Your task to perform on an android device: open app "HBO Max: Stream TV & Movies" Image 0: 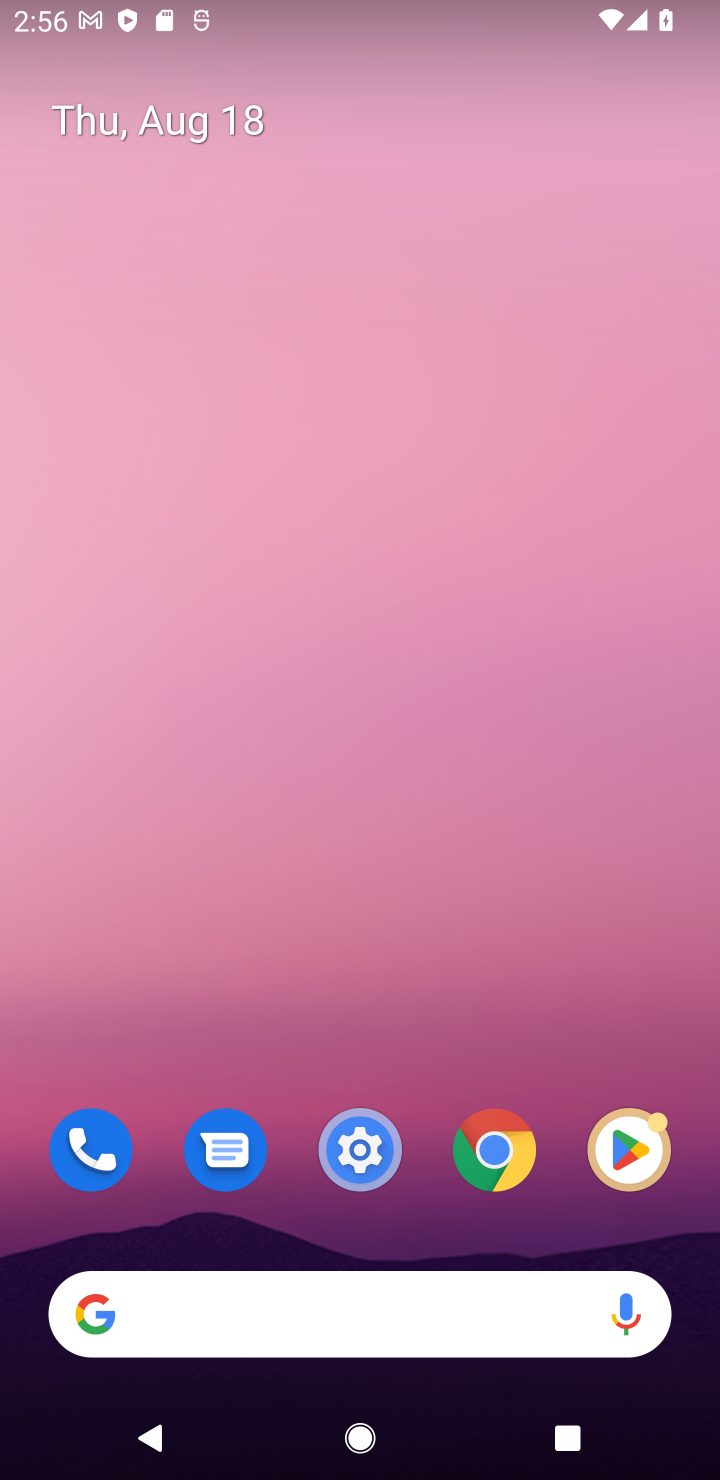
Step 0: drag from (414, 1217) to (399, 216)
Your task to perform on an android device: open app "HBO Max: Stream TV & Movies" Image 1: 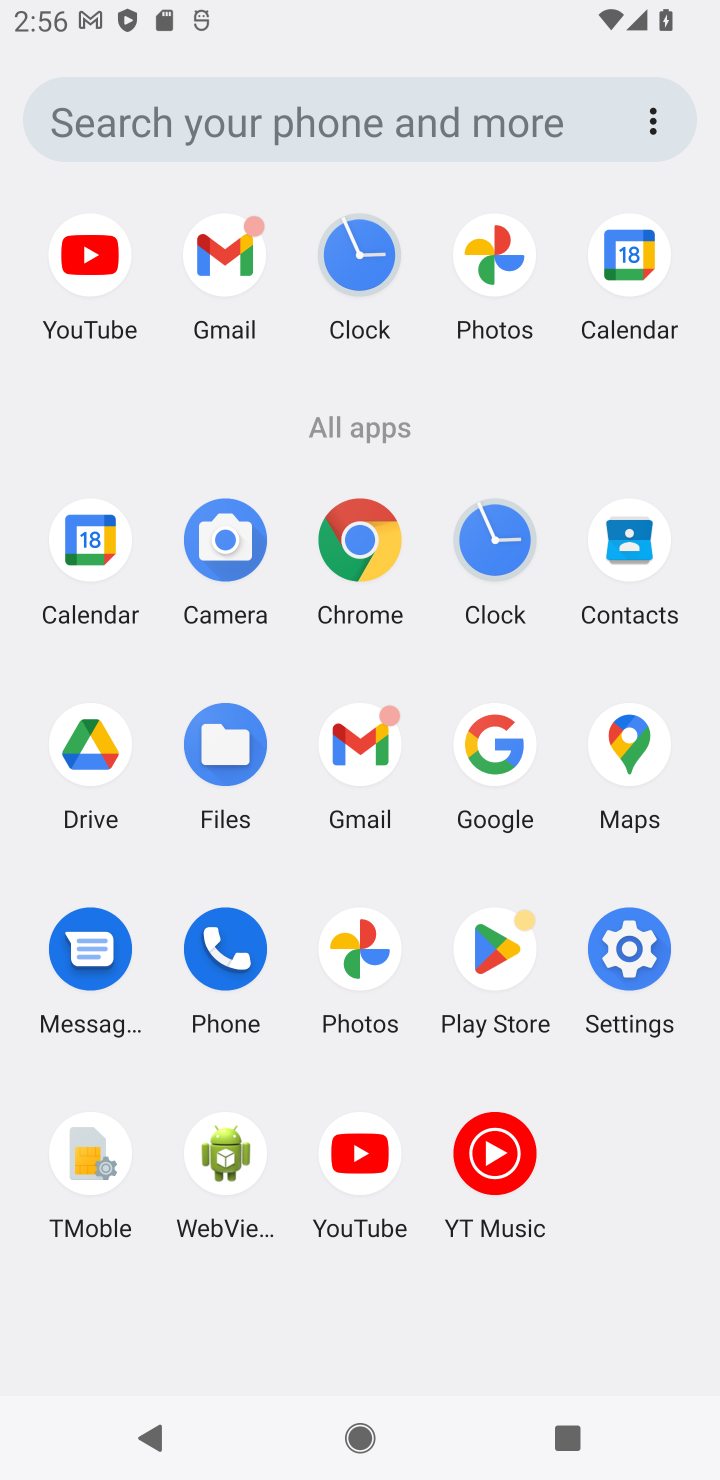
Step 1: click (499, 950)
Your task to perform on an android device: open app "HBO Max: Stream TV & Movies" Image 2: 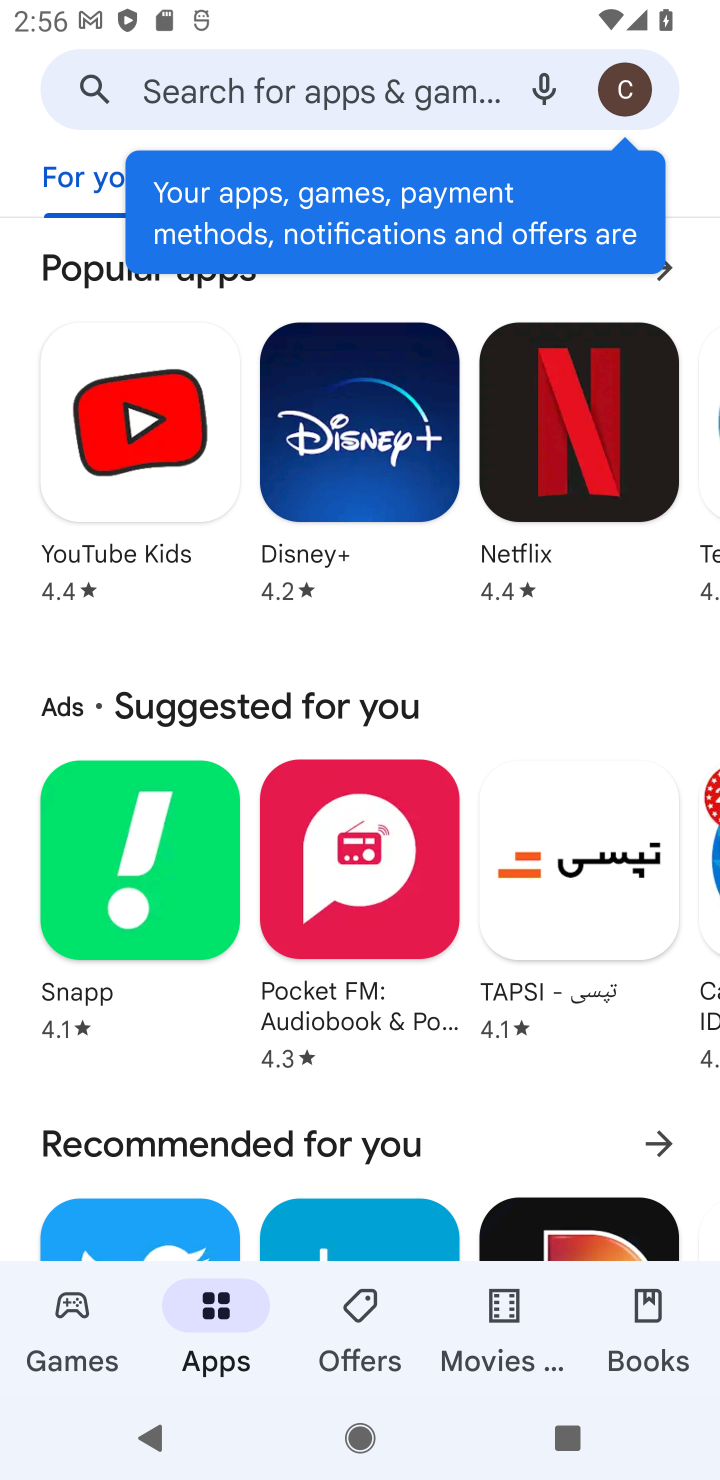
Step 2: click (243, 77)
Your task to perform on an android device: open app "HBO Max: Stream TV & Movies" Image 3: 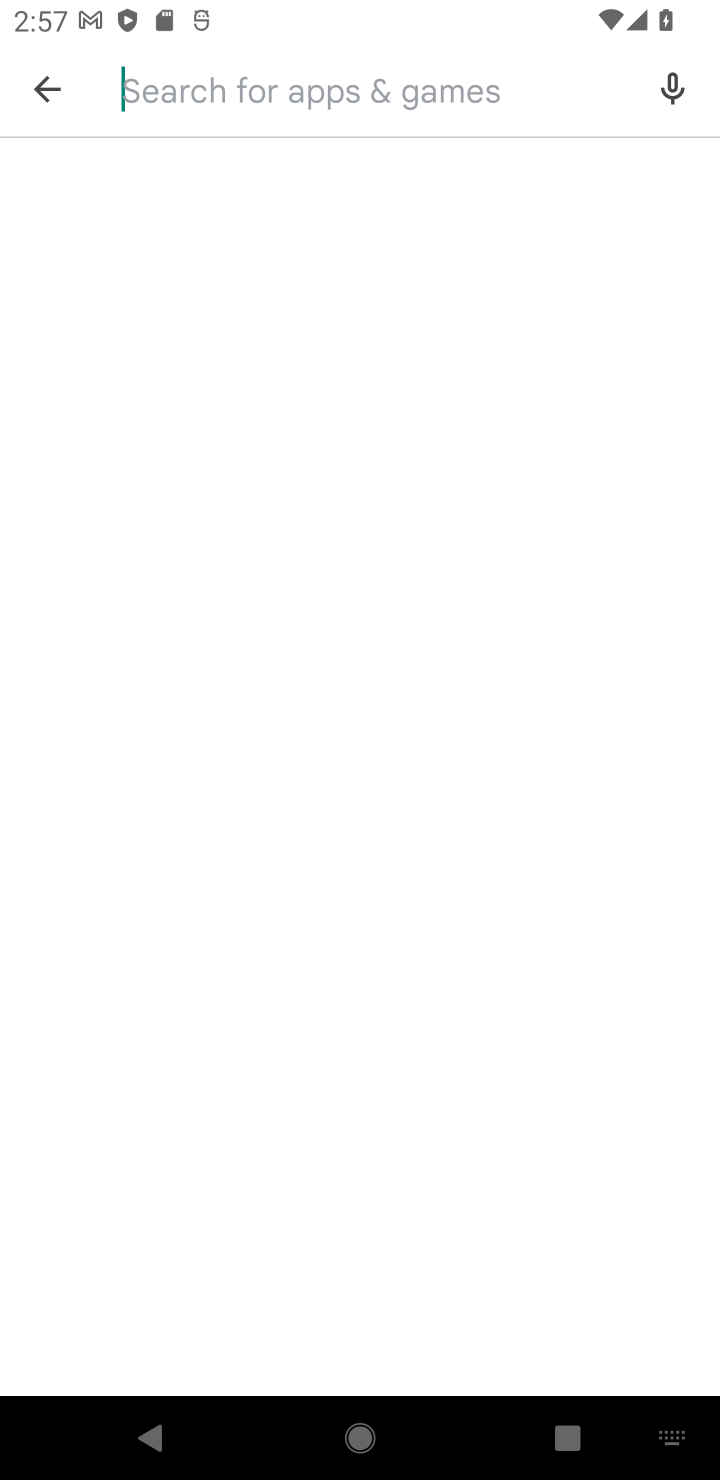
Step 3: type "HBO Max: Stream TV & Movies"
Your task to perform on an android device: open app "HBO Max: Stream TV & Movies" Image 4: 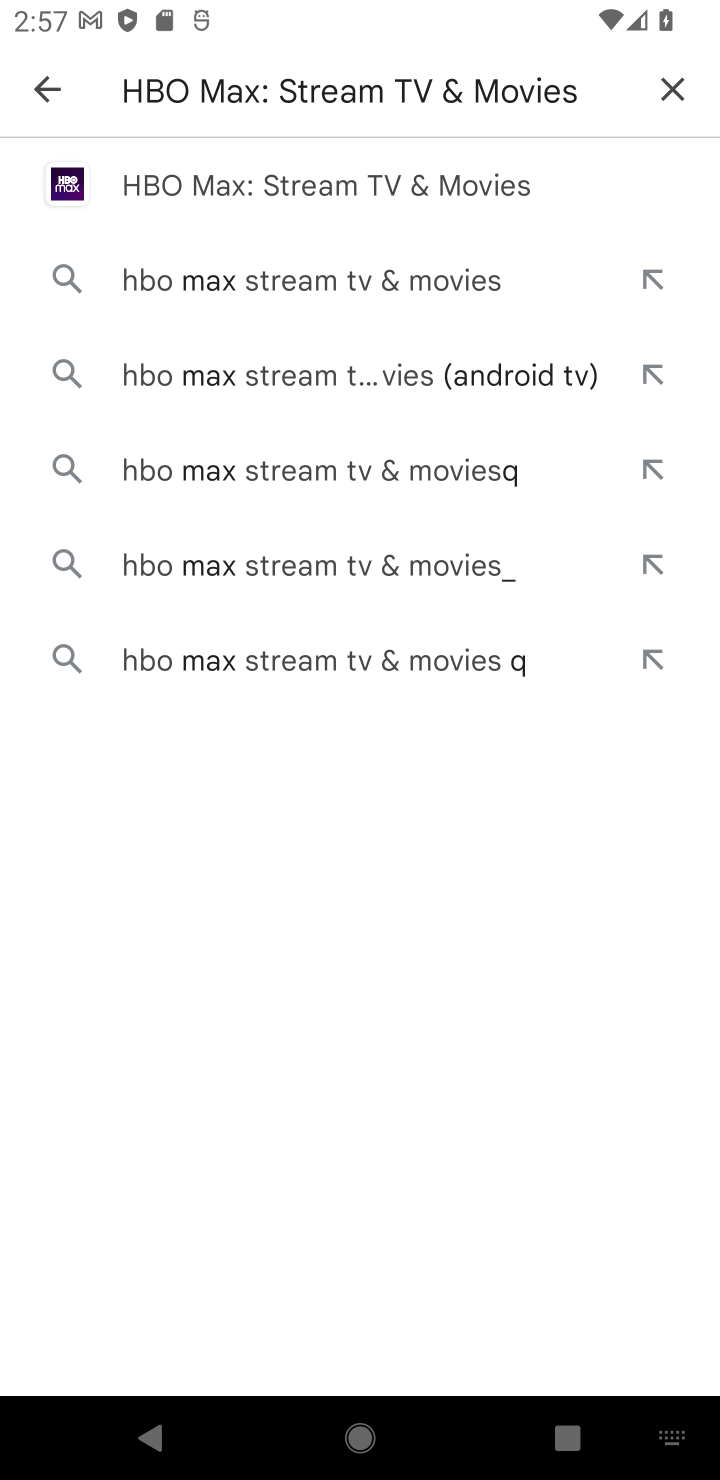
Step 4: click (257, 189)
Your task to perform on an android device: open app "HBO Max: Stream TV & Movies" Image 5: 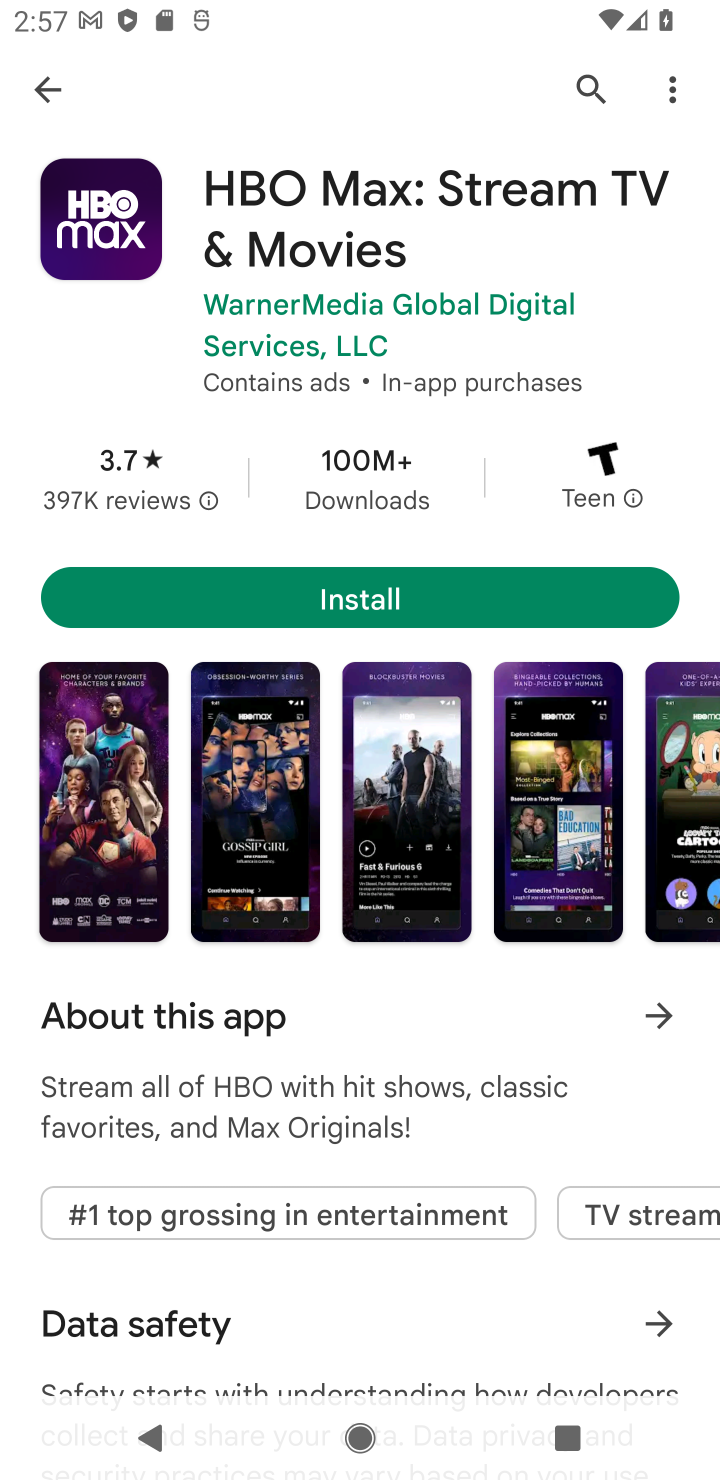
Step 5: task complete